Your task to perform on an android device: toggle notification dots Image 0: 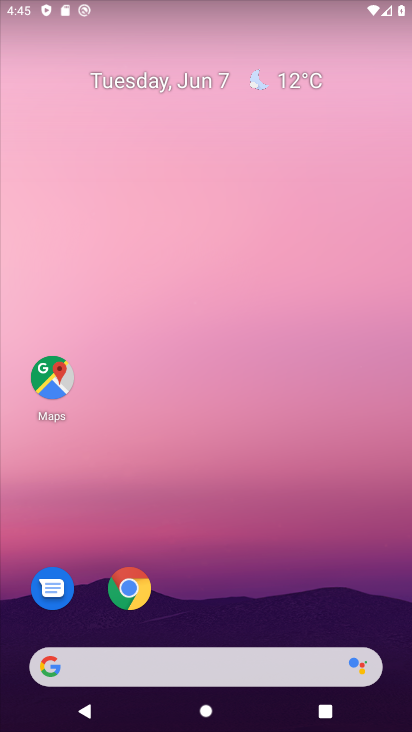
Step 0: drag from (210, 608) to (269, 39)
Your task to perform on an android device: toggle notification dots Image 1: 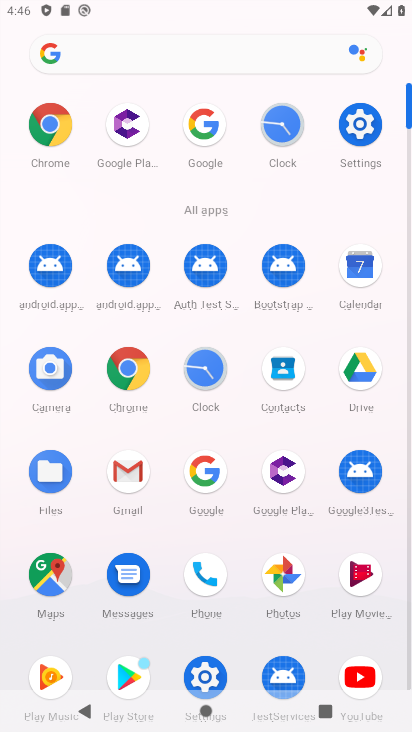
Step 1: click (355, 143)
Your task to perform on an android device: toggle notification dots Image 2: 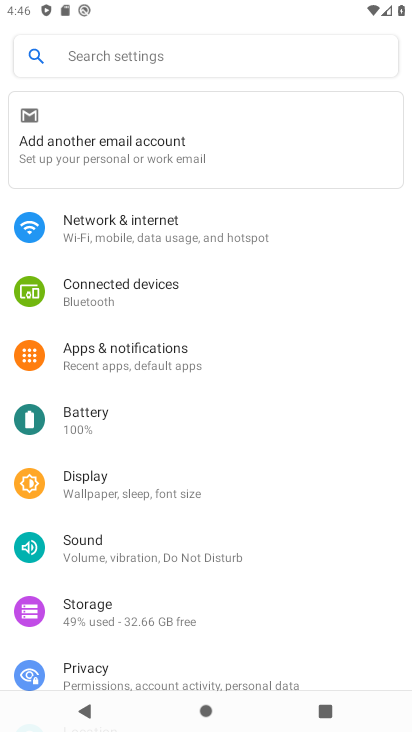
Step 2: click (109, 354)
Your task to perform on an android device: toggle notification dots Image 3: 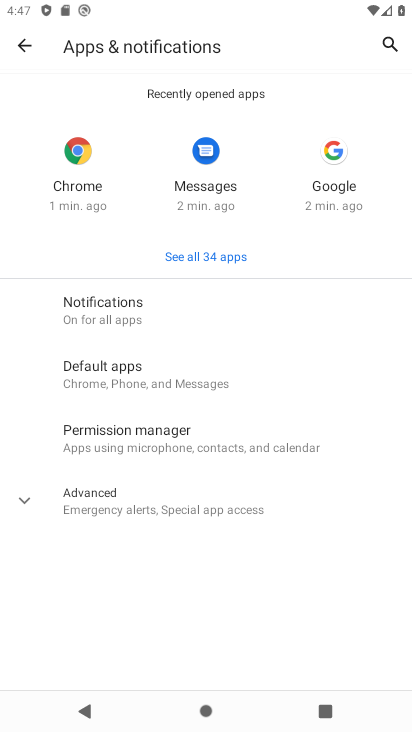
Step 3: click (89, 307)
Your task to perform on an android device: toggle notification dots Image 4: 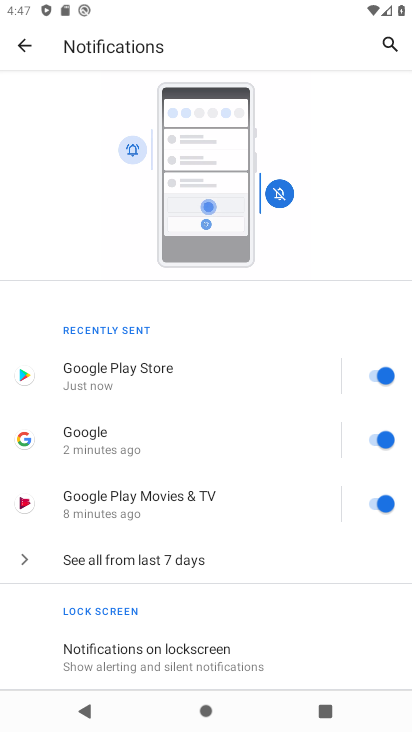
Step 4: drag from (168, 619) to (219, 367)
Your task to perform on an android device: toggle notification dots Image 5: 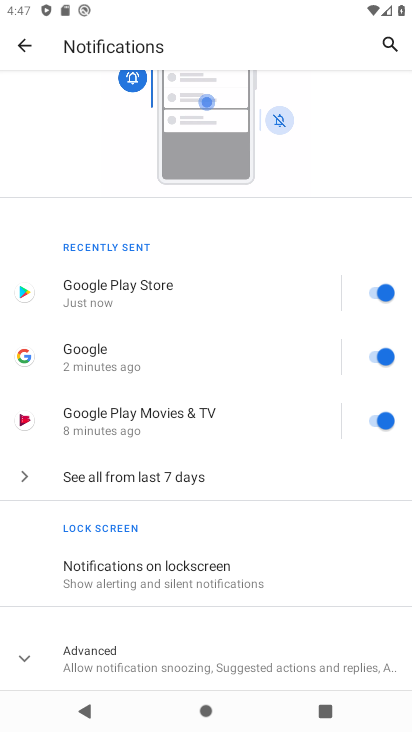
Step 5: click (98, 656)
Your task to perform on an android device: toggle notification dots Image 6: 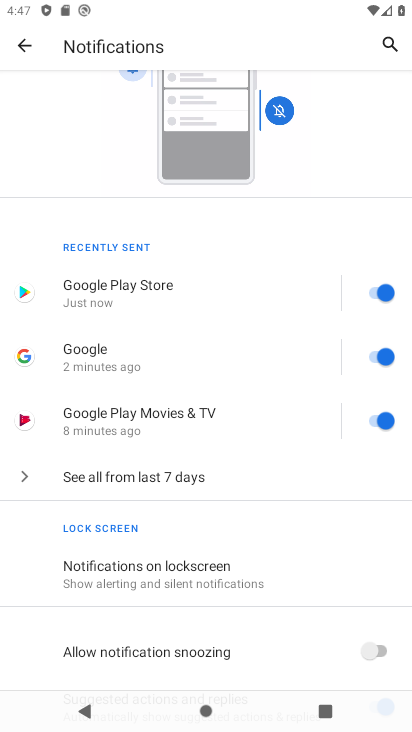
Step 6: drag from (303, 671) to (268, 226)
Your task to perform on an android device: toggle notification dots Image 7: 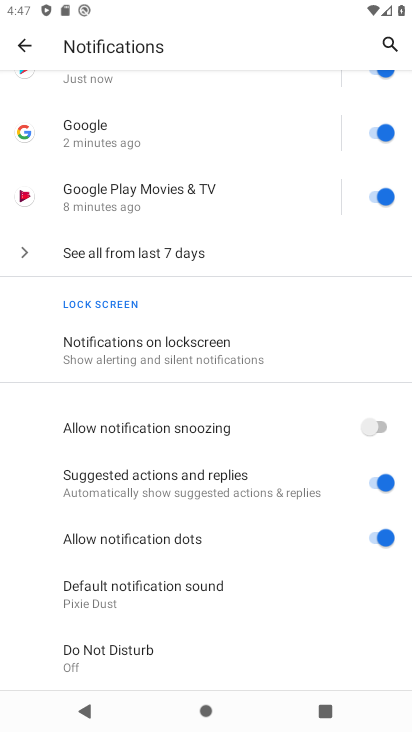
Step 7: click (377, 545)
Your task to perform on an android device: toggle notification dots Image 8: 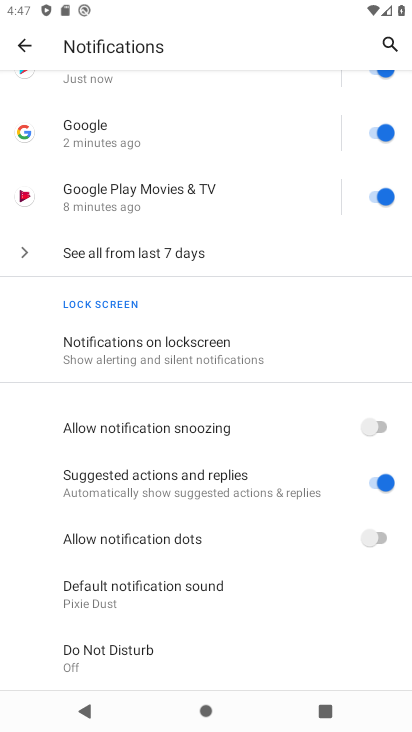
Step 8: task complete